Your task to perform on an android device: Open sound settings Image 0: 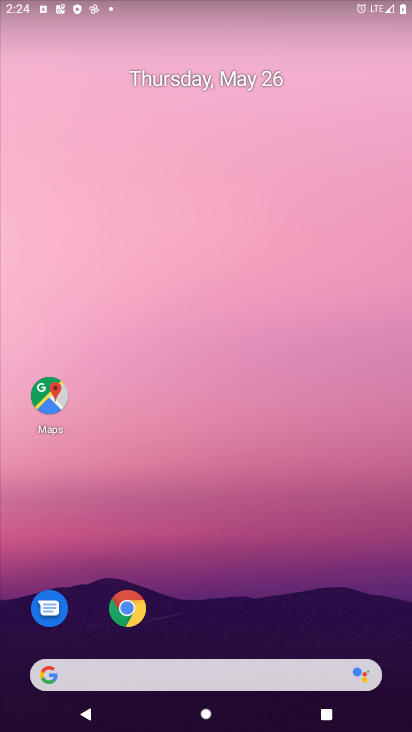
Step 0: drag from (364, 630) to (333, 146)
Your task to perform on an android device: Open sound settings Image 1: 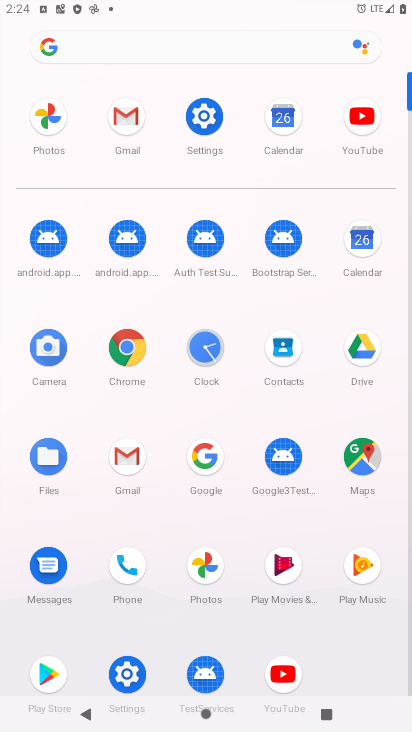
Step 1: click (123, 671)
Your task to perform on an android device: Open sound settings Image 2: 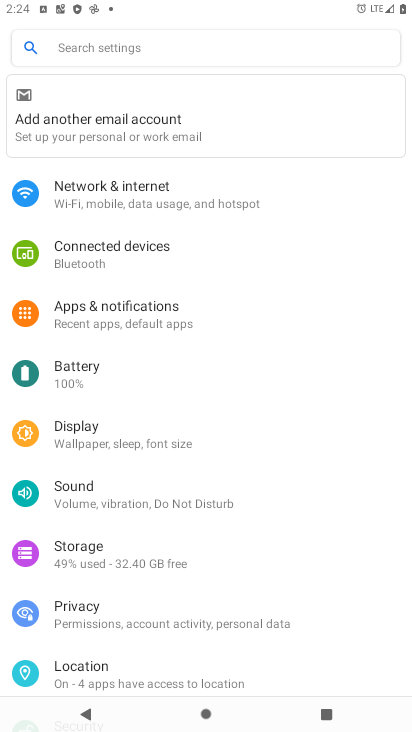
Step 2: click (66, 496)
Your task to perform on an android device: Open sound settings Image 3: 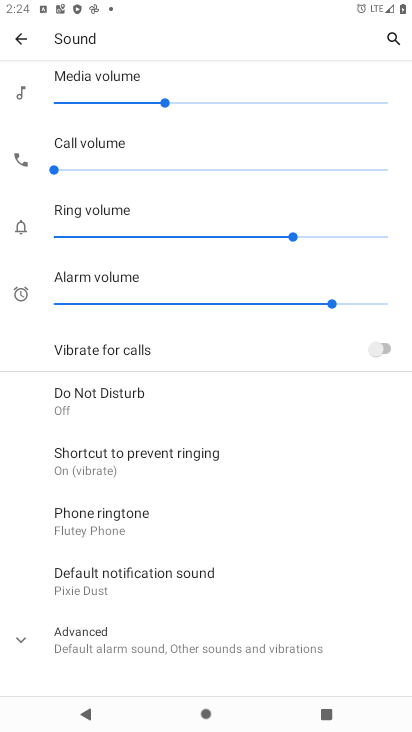
Step 3: click (19, 638)
Your task to perform on an android device: Open sound settings Image 4: 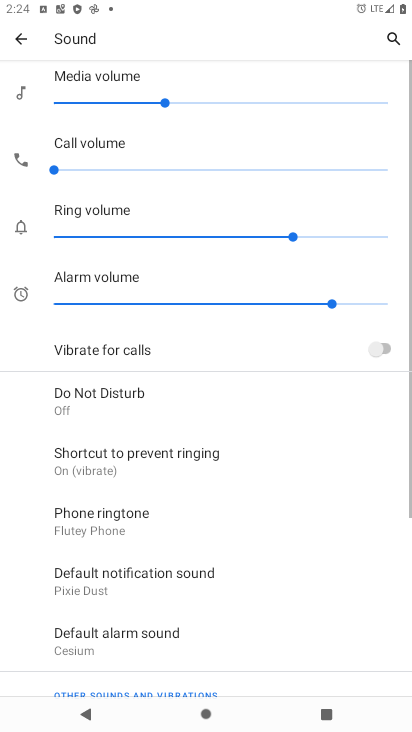
Step 4: task complete